Your task to perform on an android device: uninstall "Chime – Mobile Banking" Image 0: 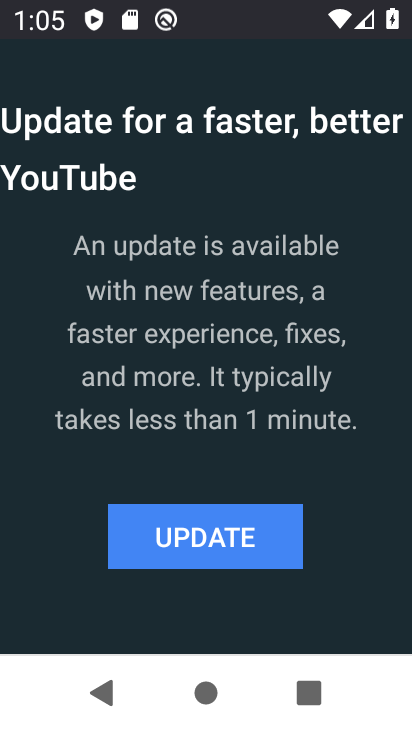
Step 0: press home button
Your task to perform on an android device: uninstall "Chime – Mobile Banking" Image 1: 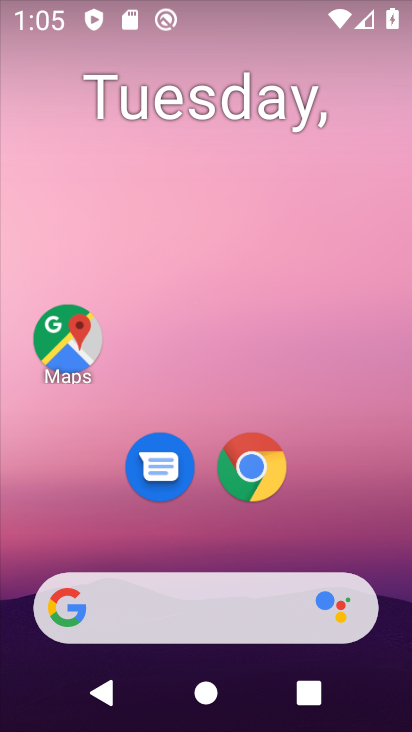
Step 1: drag from (329, 393) to (11, 490)
Your task to perform on an android device: uninstall "Chime – Mobile Banking" Image 2: 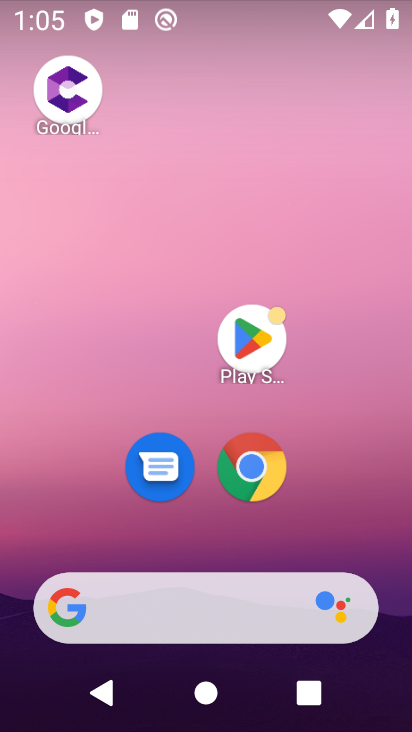
Step 2: click (246, 338)
Your task to perform on an android device: uninstall "Chime – Mobile Banking" Image 3: 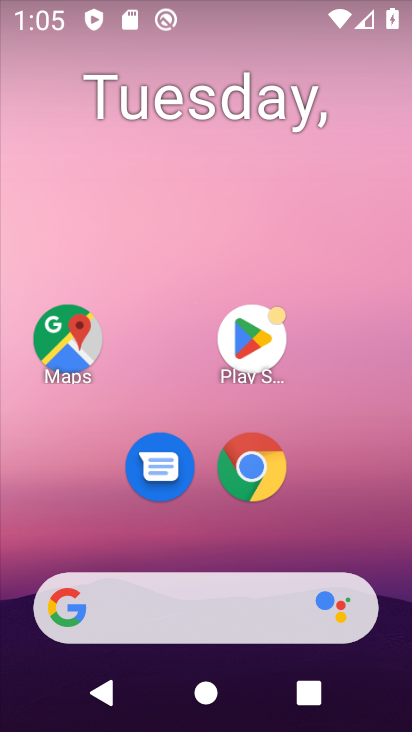
Step 3: click (255, 346)
Your task to perform on an android device: uninstall "Chime – Mobile Banking" Image 4: 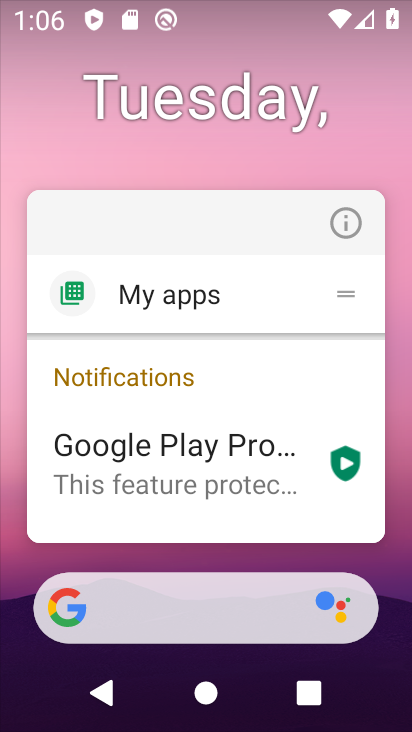
Step 4: click (336, 152)
Your task to perform on an android device: uninstall "Chime – Mobile Banking" Image 5: 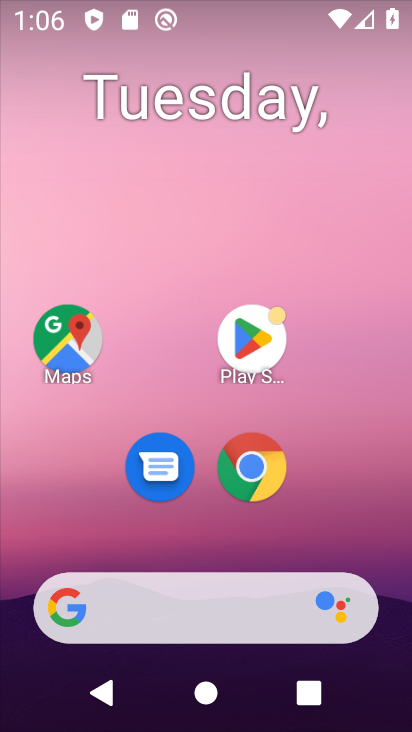
Step 5: click (247, 341)
Your task to perform on an android device: uninstall "Chime – Mobile Banking" Image 6: 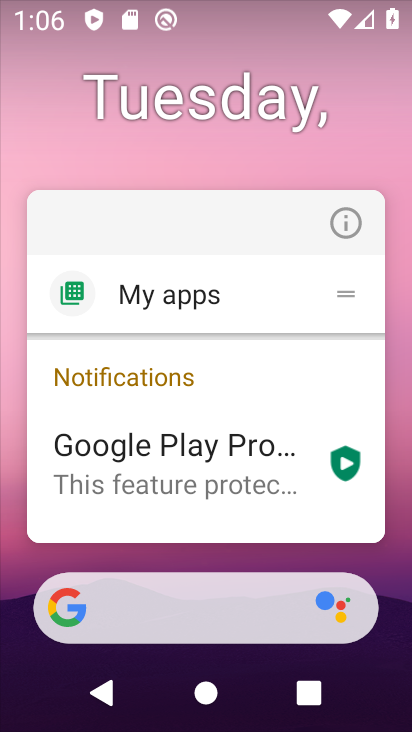
Step 6: click (346, 142)
Your task to perform on an android device: uninstall "Chime – Mobile Banking" Image 7: 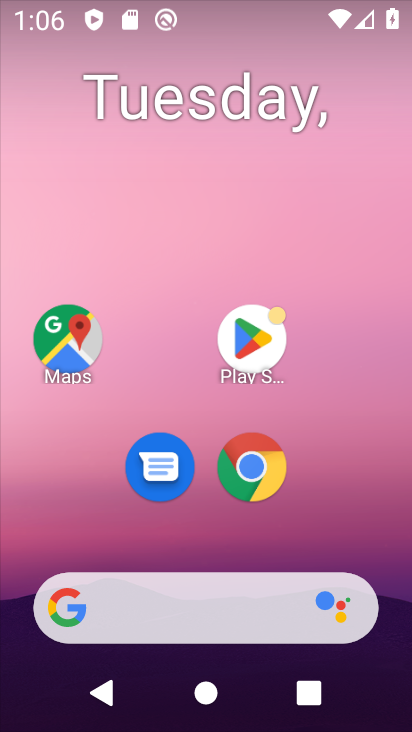
Step 7: click (260, 341)
Your task to perform on an android device: uninstall "Chime – Mobile Banking" Image 8: 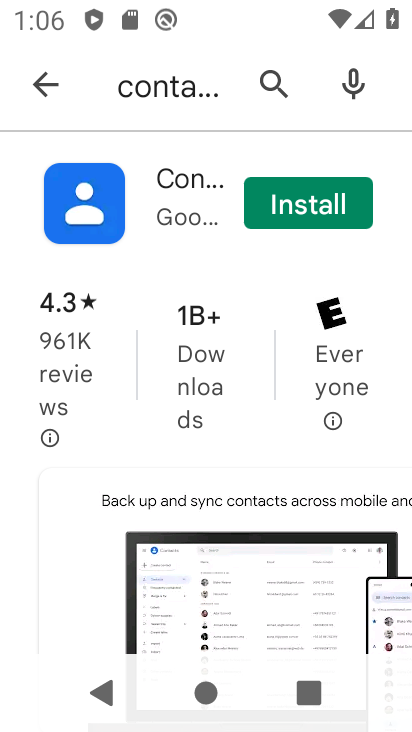
Step 8: click (275, 72)
Your task to perform on an android device: uninstall "Chime – Mobile Banking" Image 9: 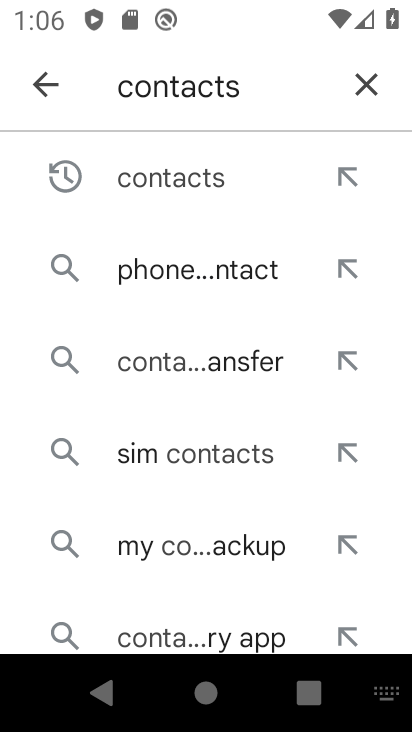
Step 9: click (374, 88)
Your task to perform on an android device: uninstall "Chime – Mobile Banking" Image 10: 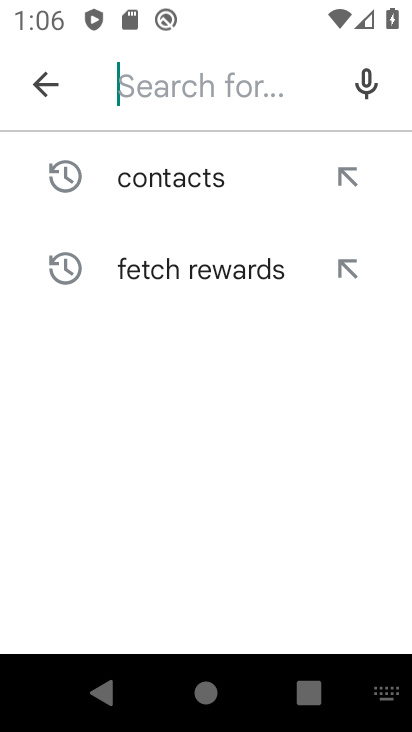
Step 10: type "Chime Mobile Banking"
Your task to perform on an android device: uninstall "Chime – Mobile Banking" Image 11: 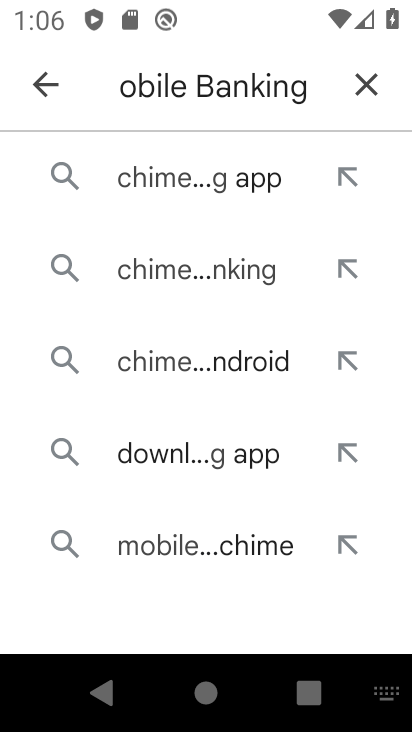
Step 11: click (200, 174)
Your task to perform on an android device: uninstall "Chime – Mobile Banking" Image 12: 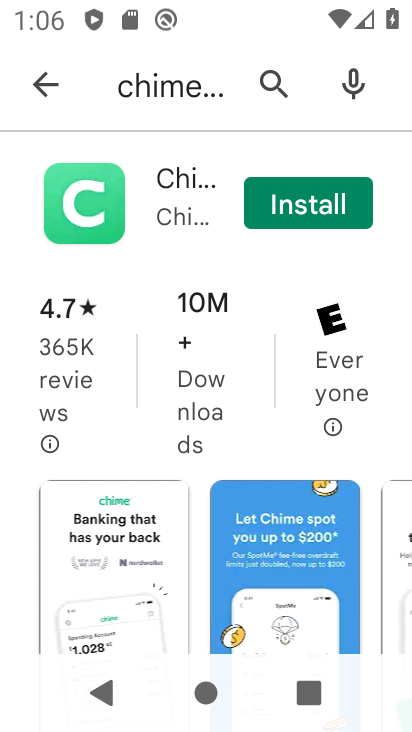
Step 12: task complete